Your task to perform on an android device: all mails in gmail Image 0: 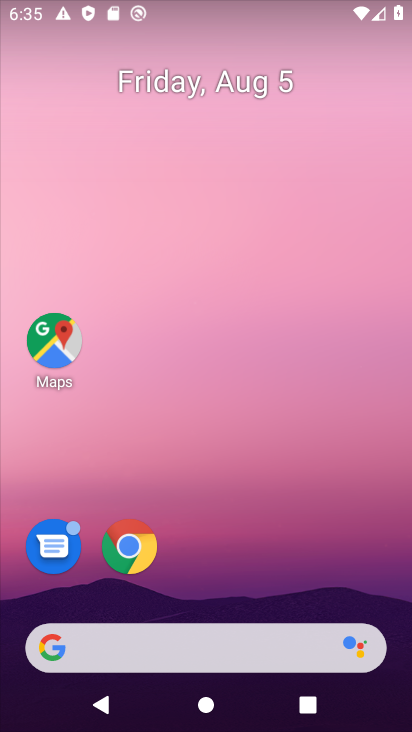
Step 0: drag from (260, 294) to (302, 207)
Your task to perform on an android device: all mails in gmail Image 1: 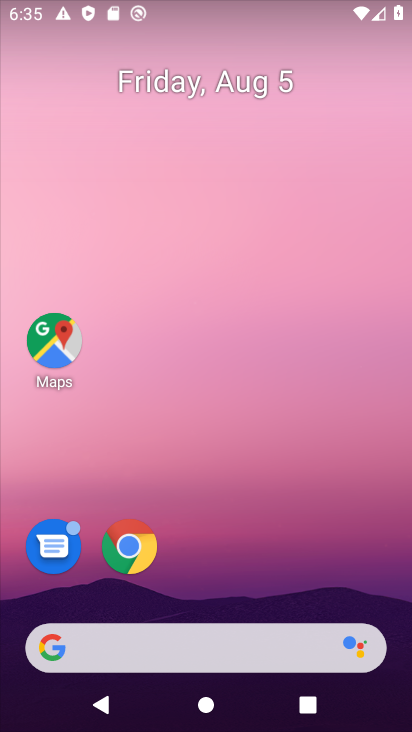
Step 1: drag from (201, 597) to (268, 107)
Your task to perform on an android device: all mails in gmail Image 2: 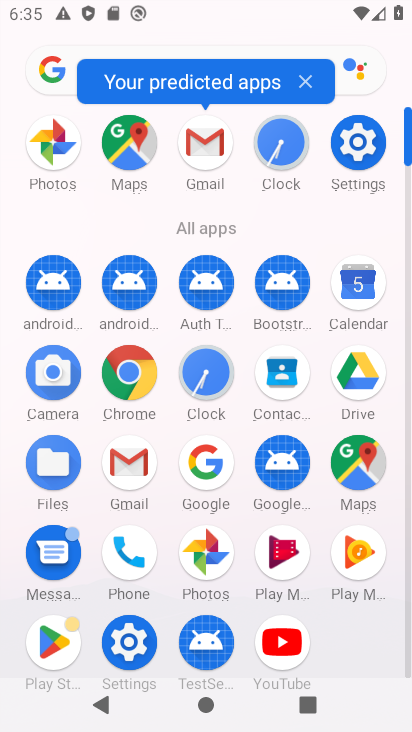
Step 2: click (136, 460)
Your task to perform on an android device: all mails in gmail Image 3: 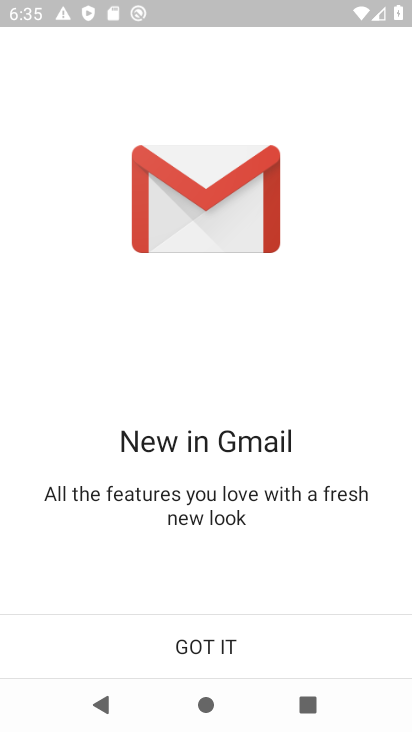
Step 3: click (216, 661)
Your task to perform on an android device: all mails in gmail Image 4: 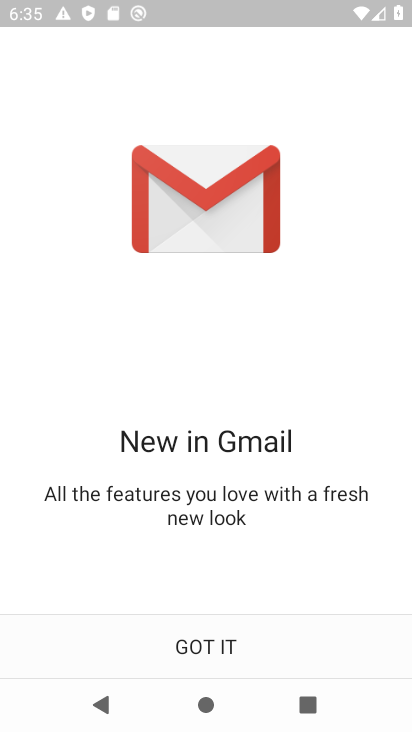
Step 4: click (213, 658)
Your task to perform on an android device: all mails in gmail Image 5: 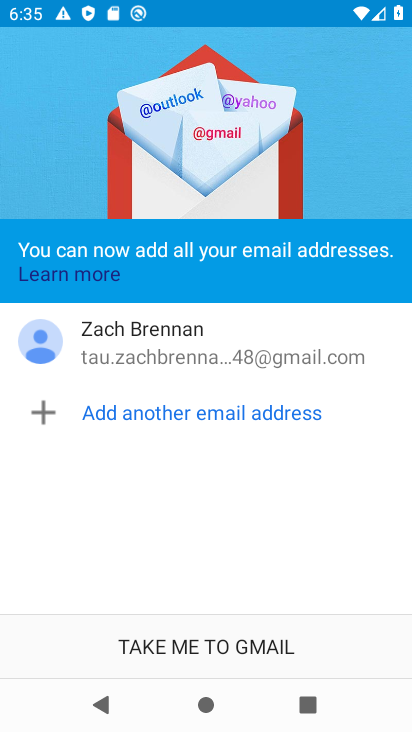
Step 5: click (211, 655)
Your task to perform on an android device: all mails in gmail Image 6: 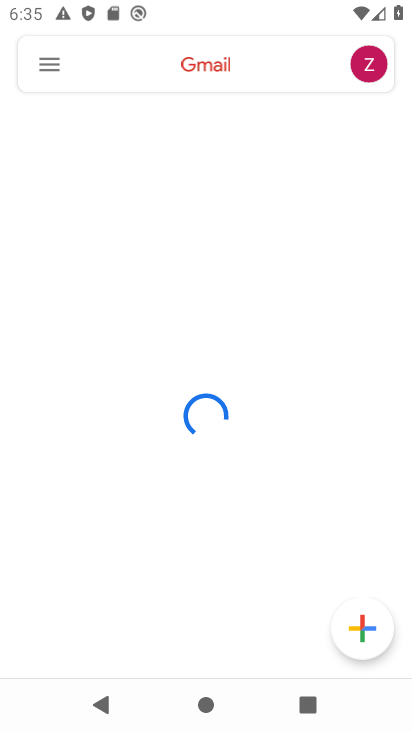
Step 6: click (39, 60)
Your task to perform on an android device: all mails in gmail Image 7: 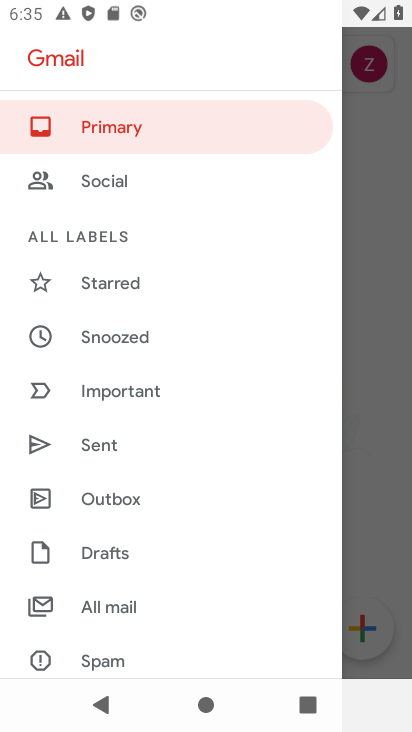
Step 7: click (96, 609)
Your task to perform on an android device: all mails in gmail Image 8: 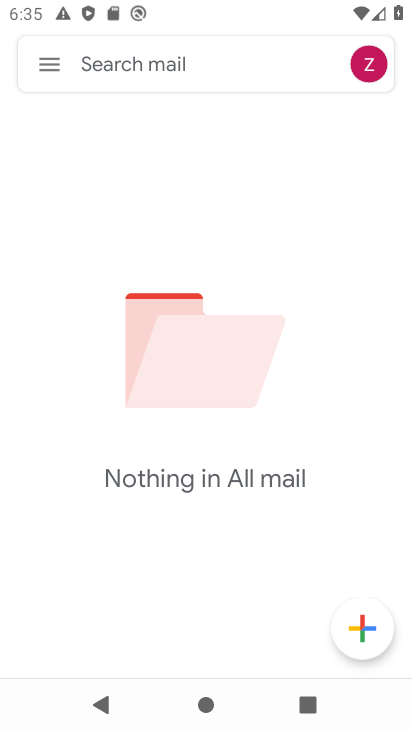
Step 8: task complete